Your task to perform on an android device: Open Google Maps Image 0: 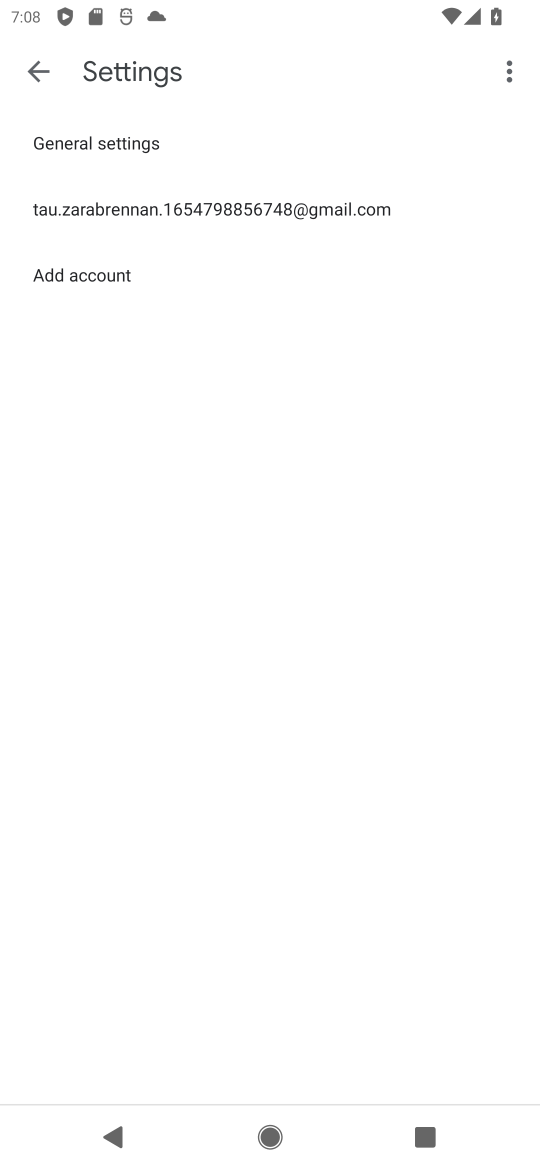
Step 0: press home button
Your task to perform on an android device: Open Google Maps Image 1: 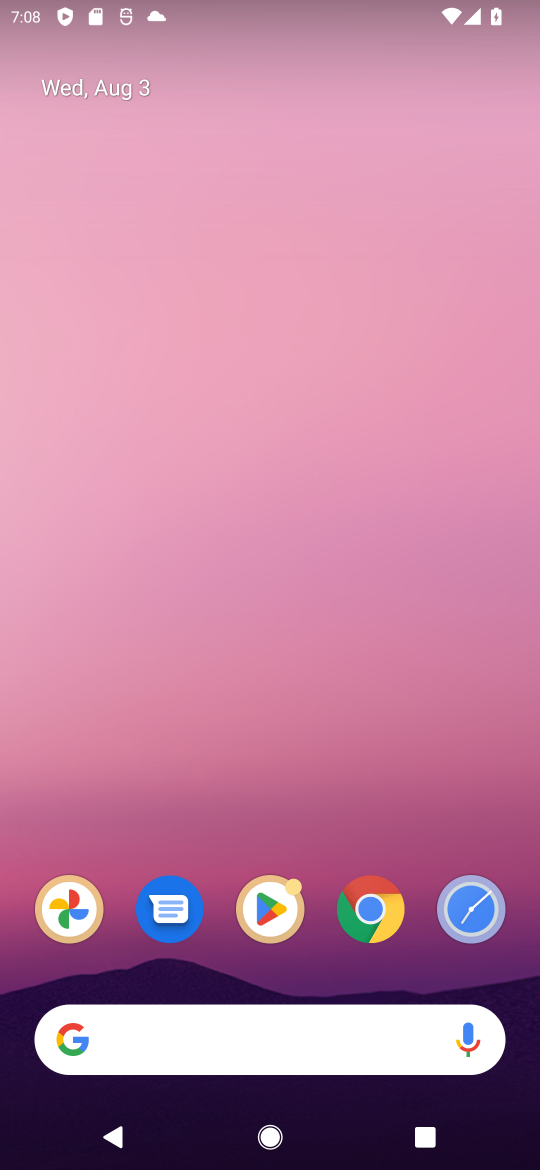
Step 1: drag from (120, 820) to (165, 167)
Your task to perform on an android device: Open Google Maps Image 2: 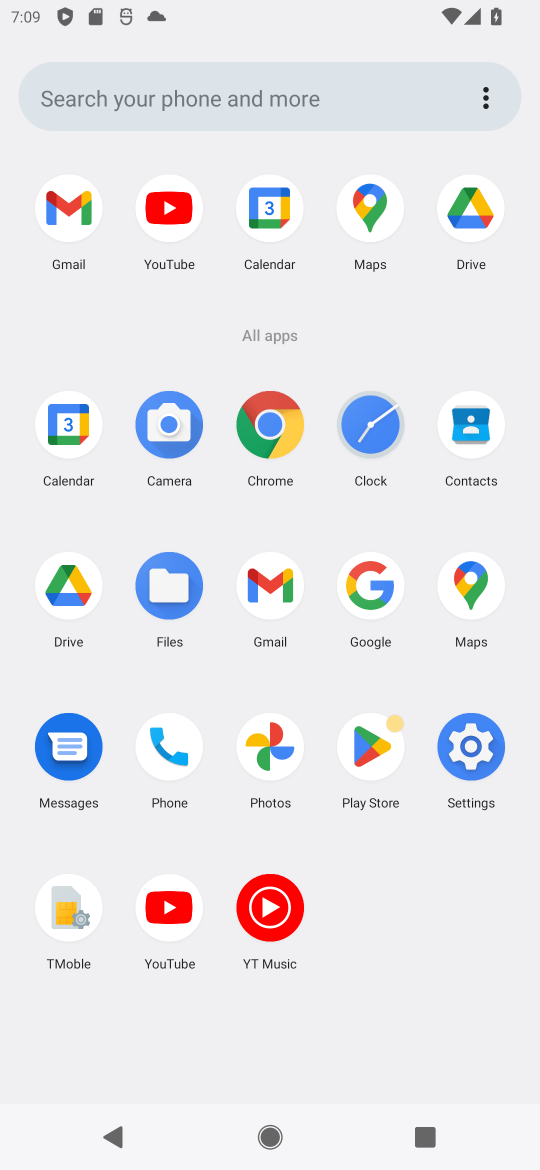
Step 2: click (483, 579)
Your task to perform on an android device: Open Google Maps Image 3: 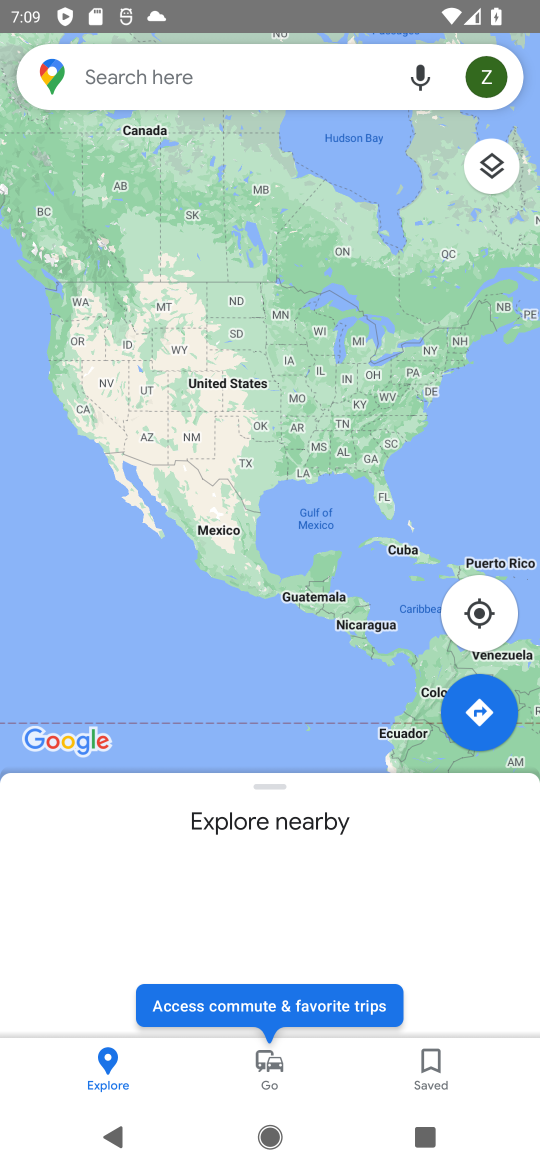
Step 3: task complete